Your task to perform on an android device: Search for pizza restaurants on Maps Image 0: 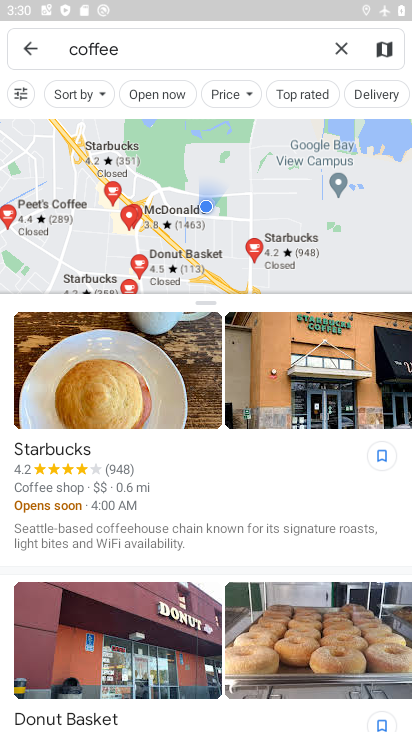
Step 0: click (337, 48)
Your task to perform on an android device: Search for pizza restaurants on Maps Image 1: 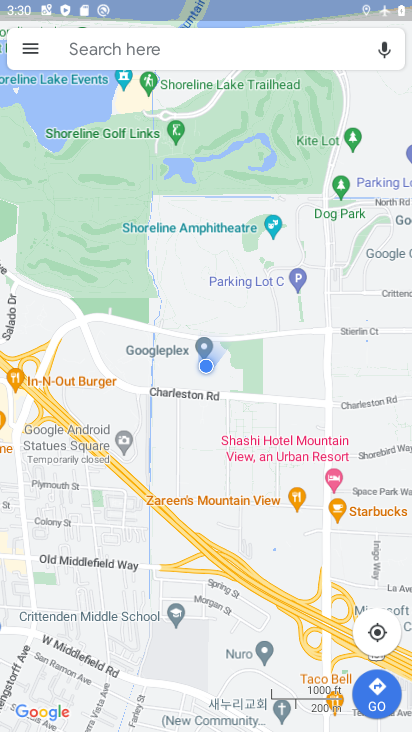
Step 1: click (139, 33)
Your task to perform on an android device: Search for pizza restaurants on Maps Image 2: 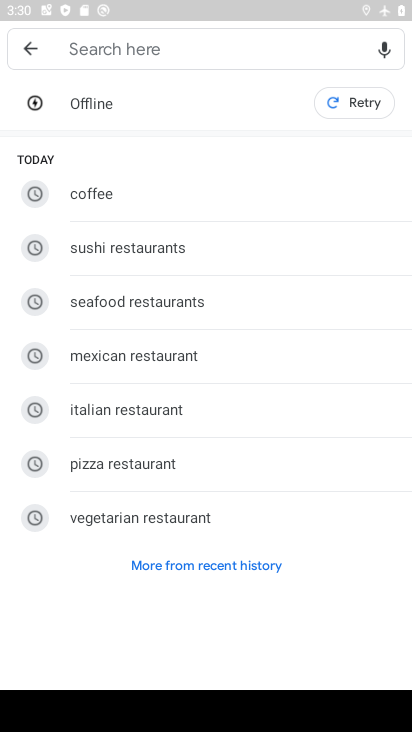
Step 2: click (141, 468)
Your task to perform on an android device: Search for pizza restaurants on Maps Image 3: 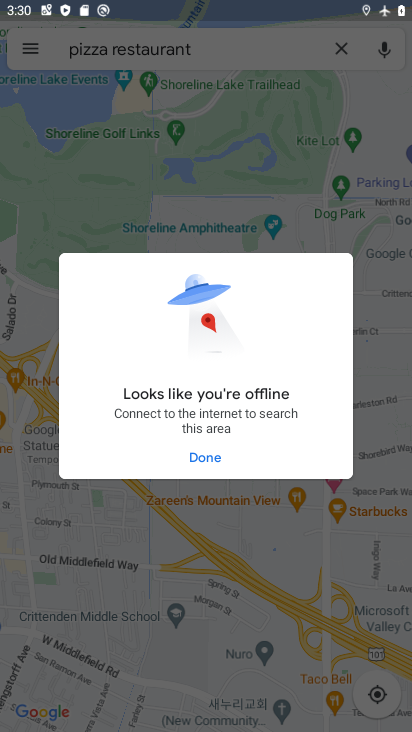
Step 3: click (196, 464)
Your task to perform on an android device: Search for pizza restaurants on Maps Image 4: 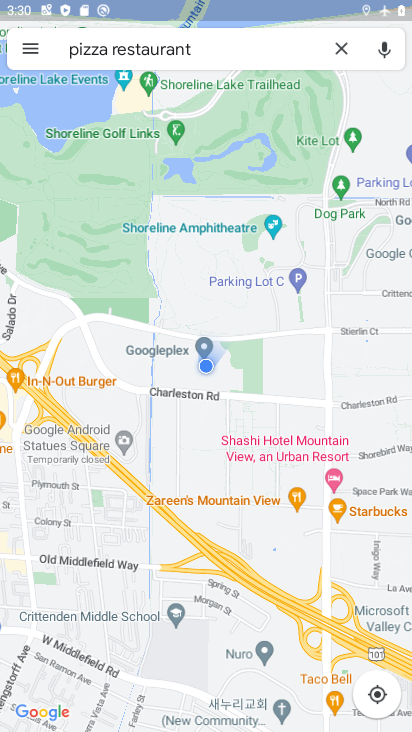
Step 4: task complete